Your task to perform on an android device: Open Google Chrome Image 0: 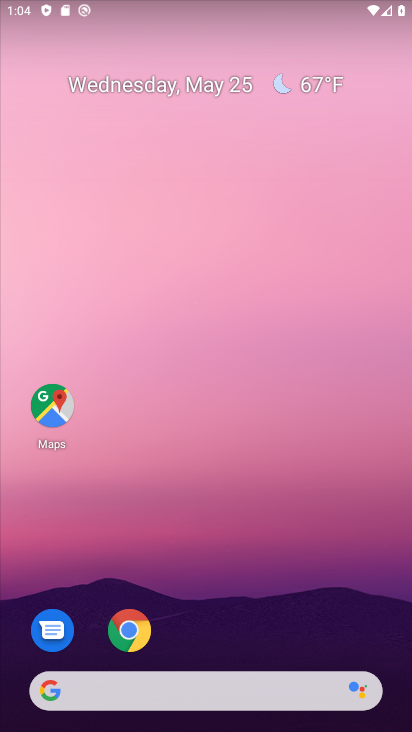
Step 0: press home button
Your task to perform on an android device: Open Google Chrome Image 1: 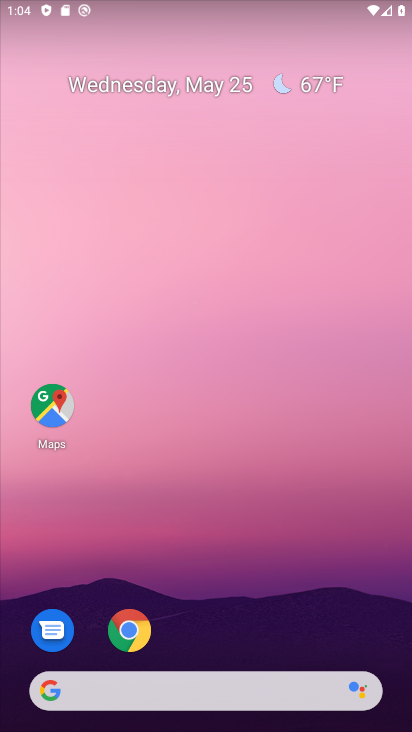
Step 1: click (132, 623)
Your task to perform on an android device: Open Google Chrome Image 2: 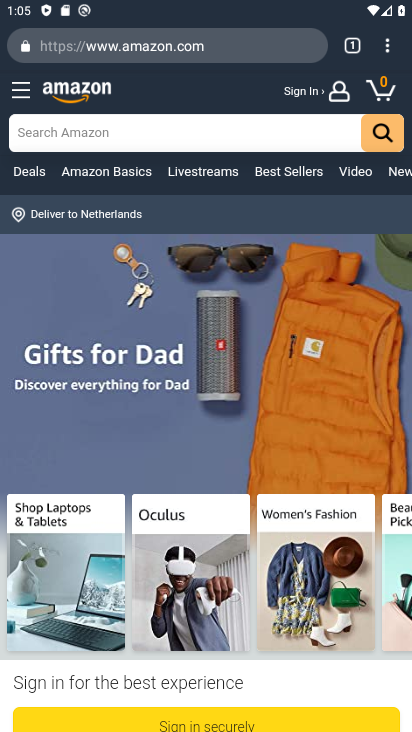
Step 2: click (357, 43)
Your task to perform on an android device: Open Google Chrome Image 3: 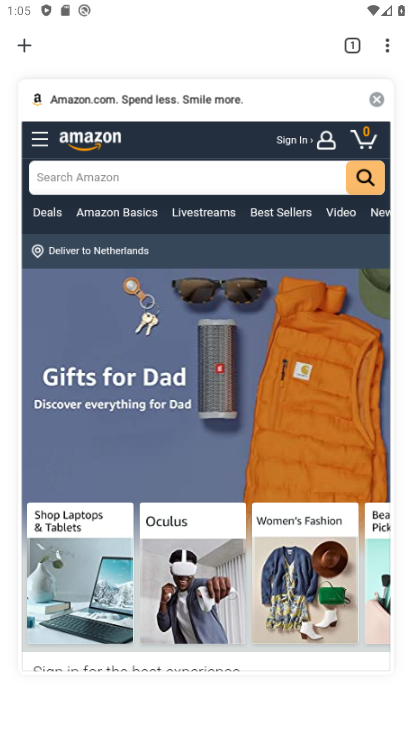
Step 3: click (376, 94)
Your task to perform on an android device: Open Google Chrome Image 4: 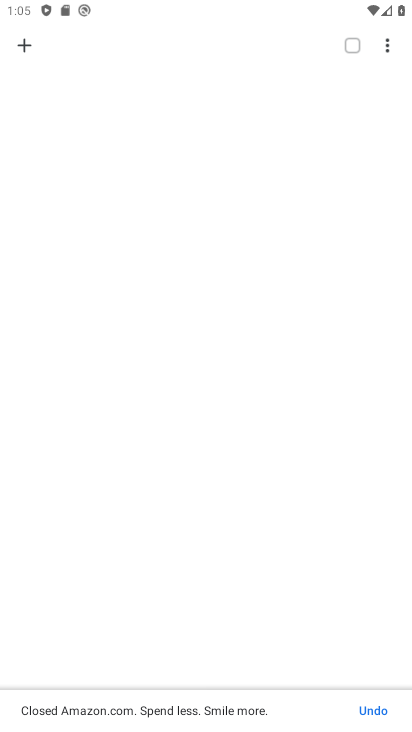
Step 4: click (23, 45)
Your task to perform on an android device: Open Google Chrome Image 5: 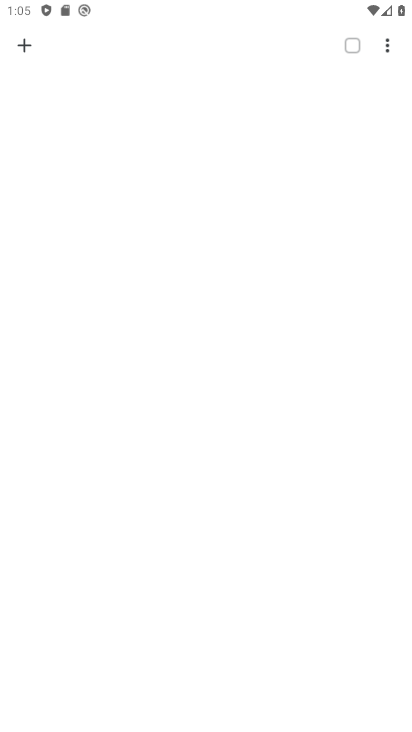
Step 5: click (27, 42)
Your task to perform on an android device: Open Google Chrome Image 6: 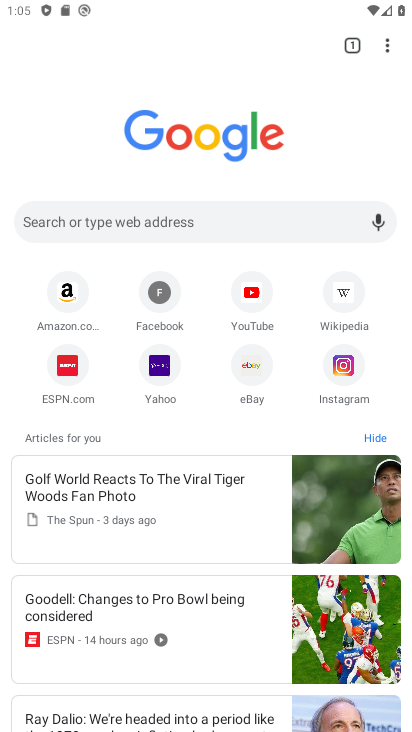
Step 6: task complete